Your task to perform on an android device: Open Yahoo.com Image 0: 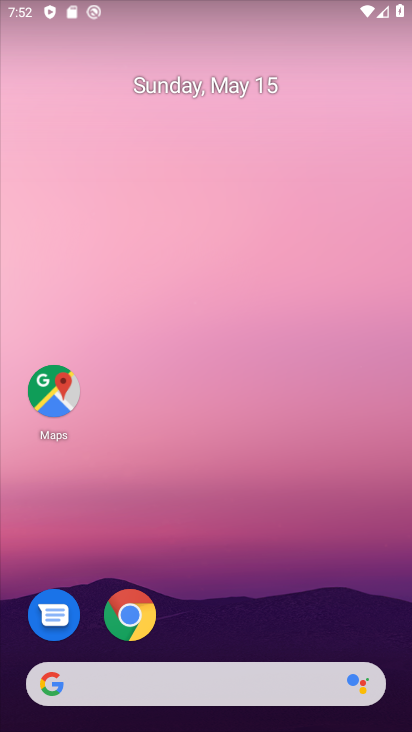
Step 0: drag from (259, 650) to (203, 427)
Your task to perform on an android device: Open Yahoo.com Image 1: 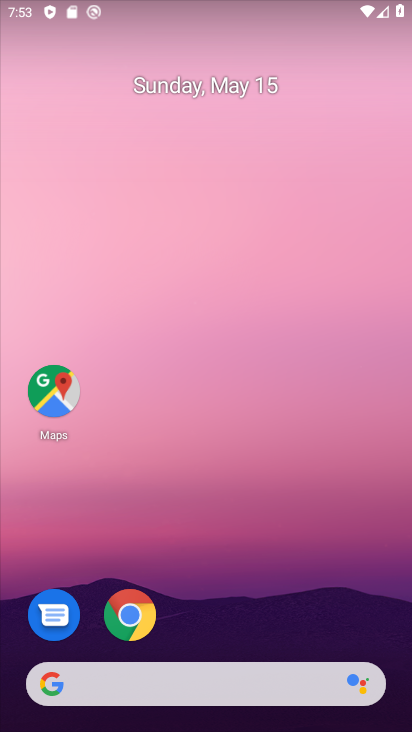
Step 1: drag from (246, 711) to (347, 229)
Your task to perform on an android device: Open Yahoo.com Image 2: 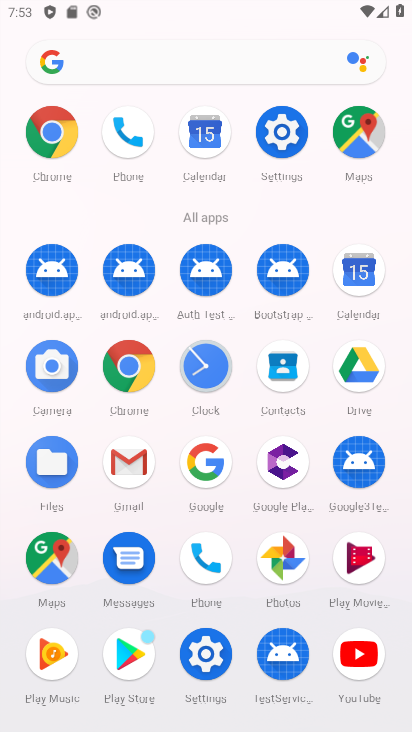
Step 2: click (71, 124)
Your task to perform on an android device: Open Yahoo.com Image 3: 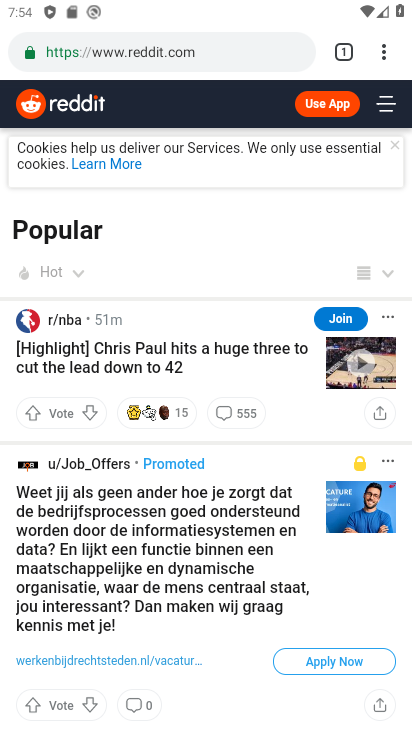
Step 3: click (158, 41)
Your task to perform on an android device: Open Yahoo.com Image 4: 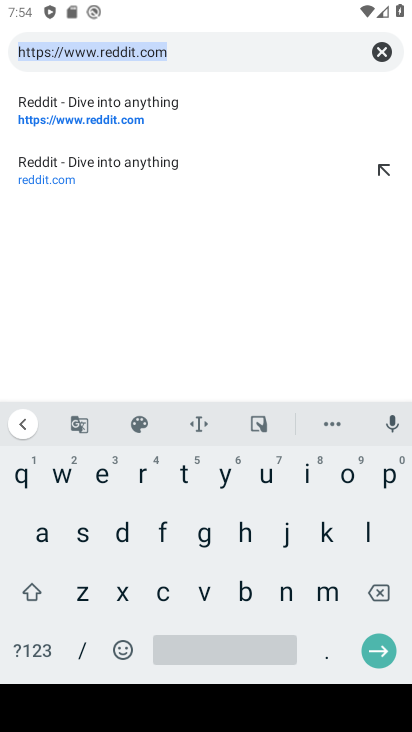
Step 4: click (370, 49)
Your task to perform on an android device: Open Yahoo.com Image 5: 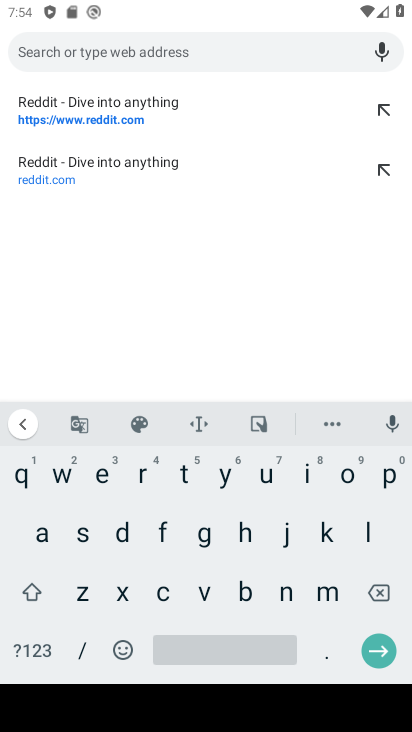
Step 5: click (225, 489)
Your task to perform on an android device: Open Yahoo.com Image 6: 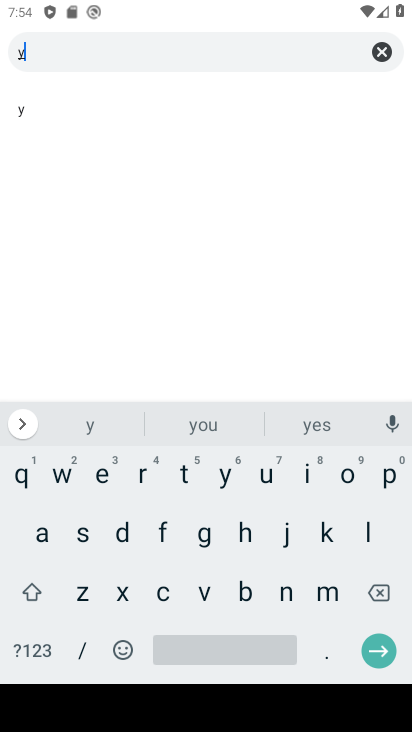
Step 6: click (39, 535)
Your task to perform on an android device: Open Yahoo.com Image 7: 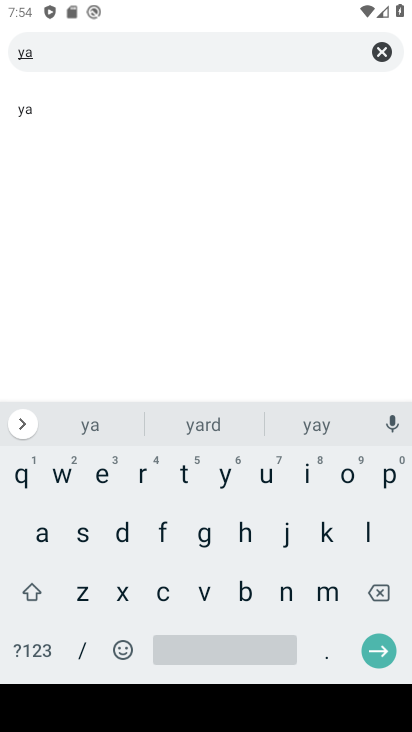
Step 7: click (244, 534)
Your task to perform on an android device: Open Yahoo.com Image 8: 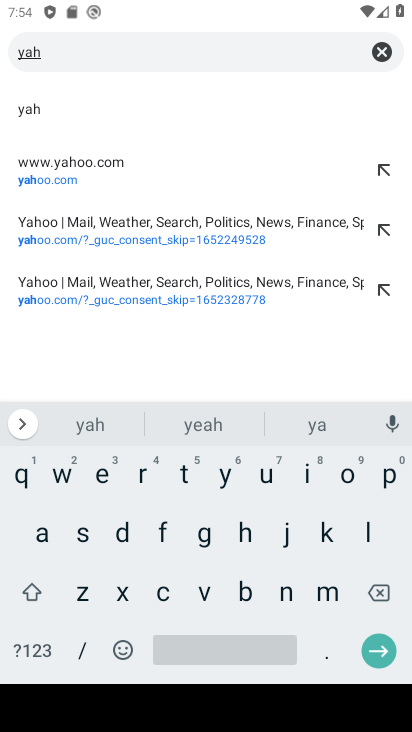
Step 8: click (78, 161)
Your task to perform on an android device: Open Yahoo.com Image 9: 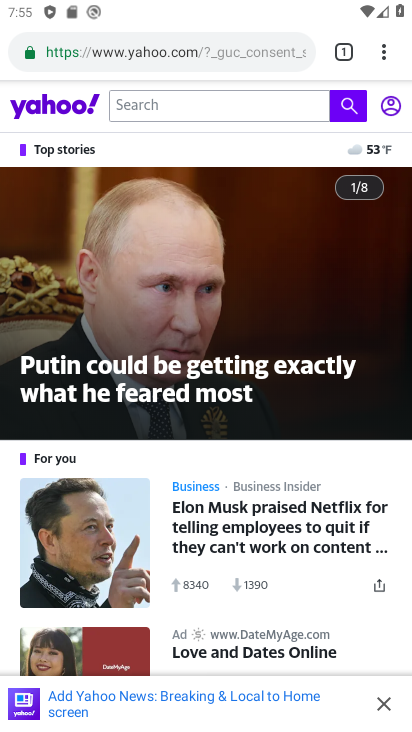
Step 9: task complete